Your task to perform on an android device: Show me popular videos on Youtube Image 0: 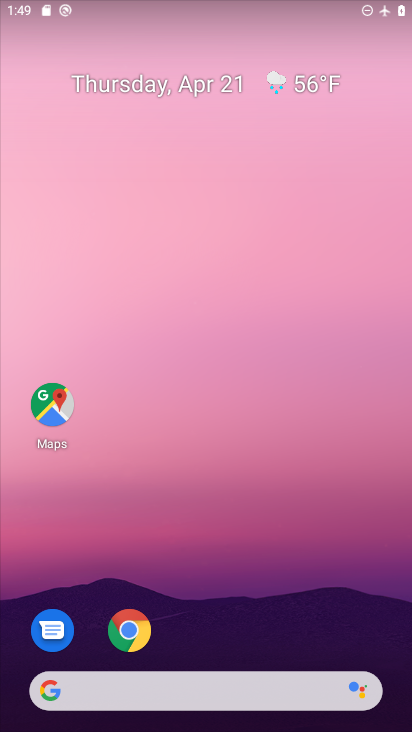
Step 0: drag from (196, 683) to (174, 240)
Your task to perform on an android device: Show me popular videos on Youtube Image 1: 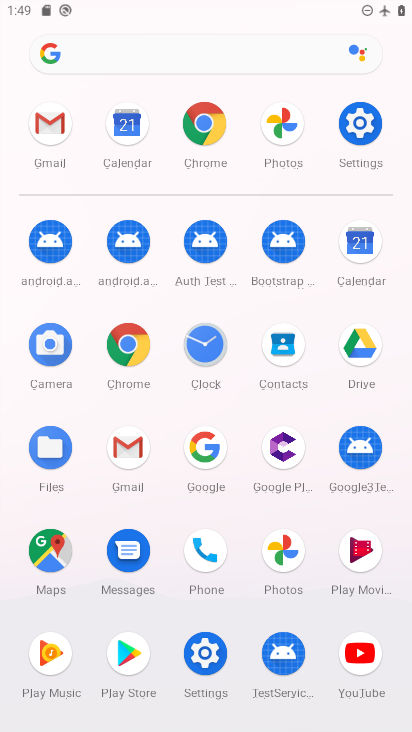
Step 1: click (368, 655)
Your task to perform on an android device: Show me popular videos on Youtube Image 2: 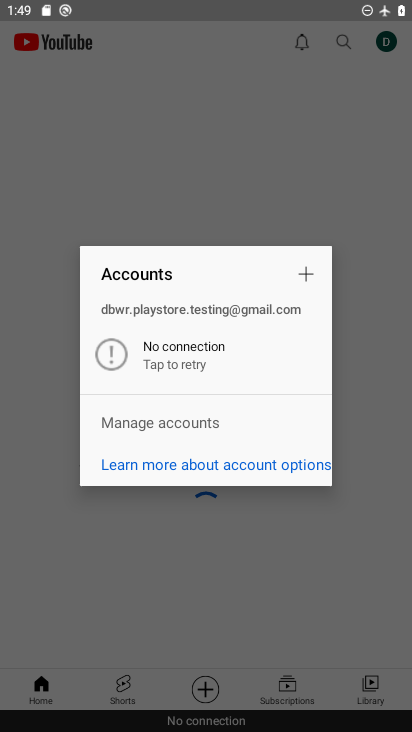
Step 2: click (213, 370)
Your task to perform on an android device: Show me popular videos on Youtube Image 3: 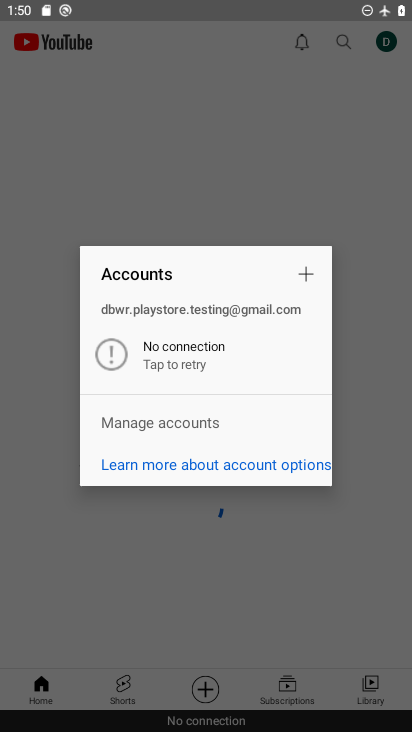
Step 3: task complete